Your task to perform on an android device: Show me recent news Image 0: 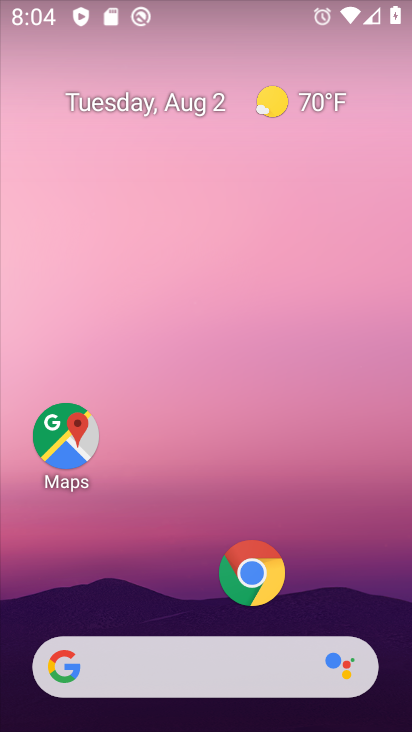
Step 0: press home button
Your task to perform on an android device: Show me recent news Image 1: 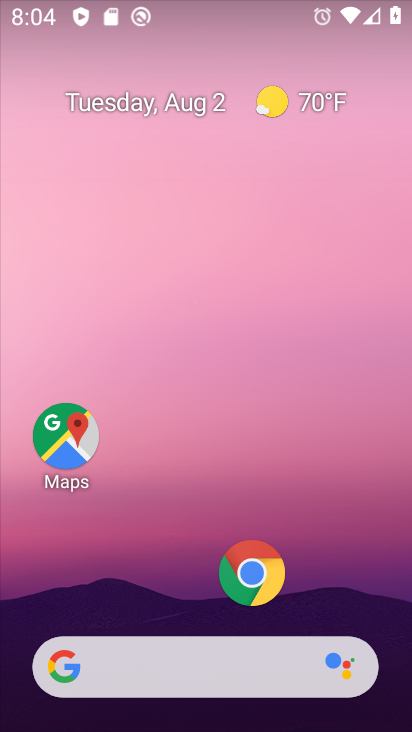
Step 1: task complete